Your task to perform on an android device: add a contact in the contacts app Image 0: 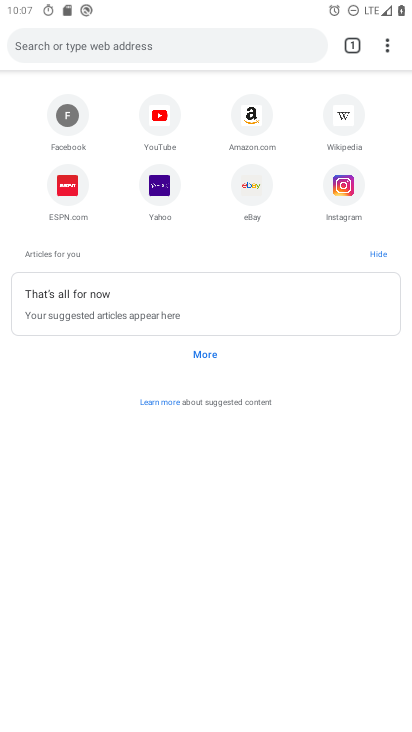
Step 0: press home button
Your task to perform on an android device: add a contact in the contacts app Image 1: 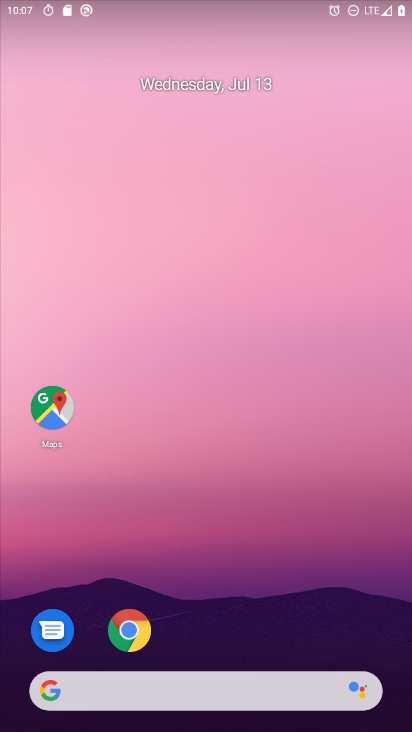
Step 1: drag from (389, 658) to (221, 116)
Your task to perform on an android device: add a contact in the contacts app Image 2: 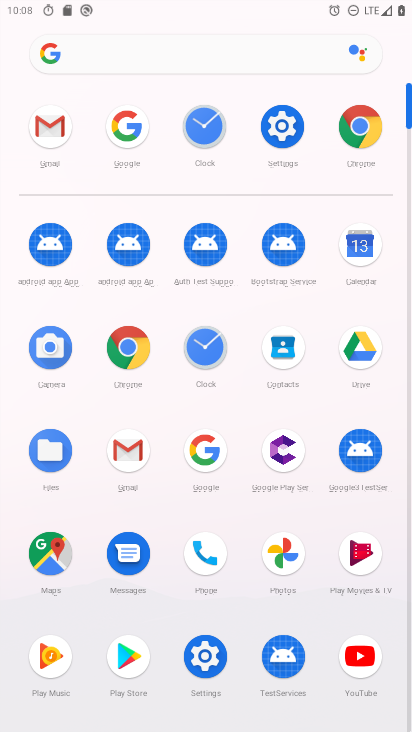
Step 2: click (288, 360)
Your task to perform on an android device: add a contact in the contacts app Image 3: 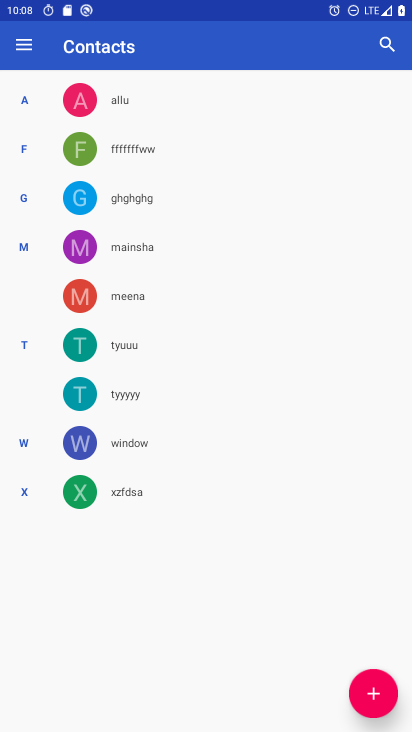
Step 3: click (362, 675)
Your task to perform on an android device: add a contact in the contacts app Image 4: 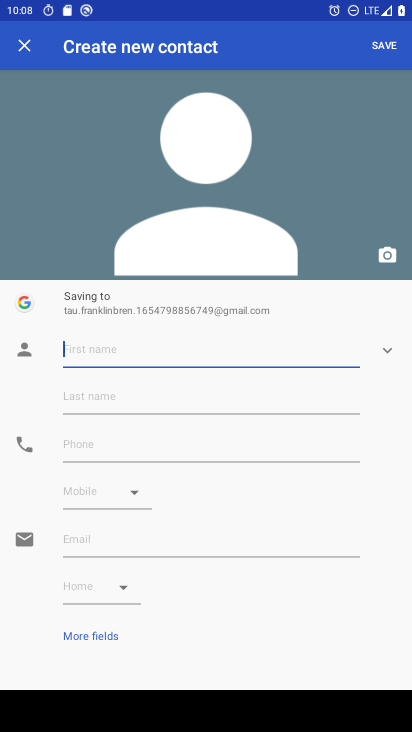
Step 4: type "ashish"
Your task to perform on an android device: add a contact in the contacts app Image 5: 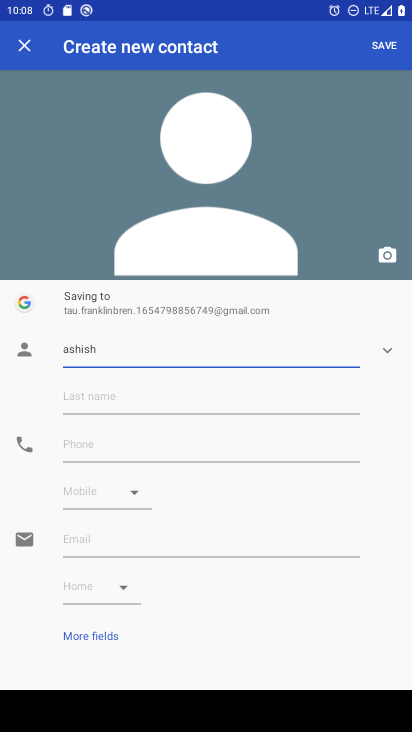
Step 5: click (378, 49)
Your task to perform on an android device: add a contact in the contacts app Image 6: 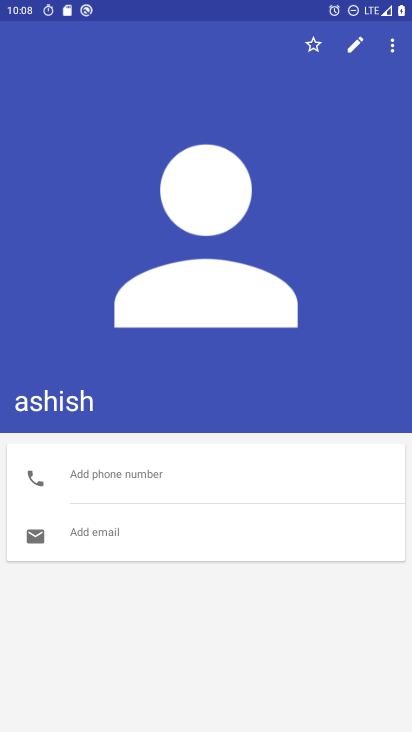
Step 6: task complete